Your task to perform on an android device: Is it going to rain this weekend? Image 0: 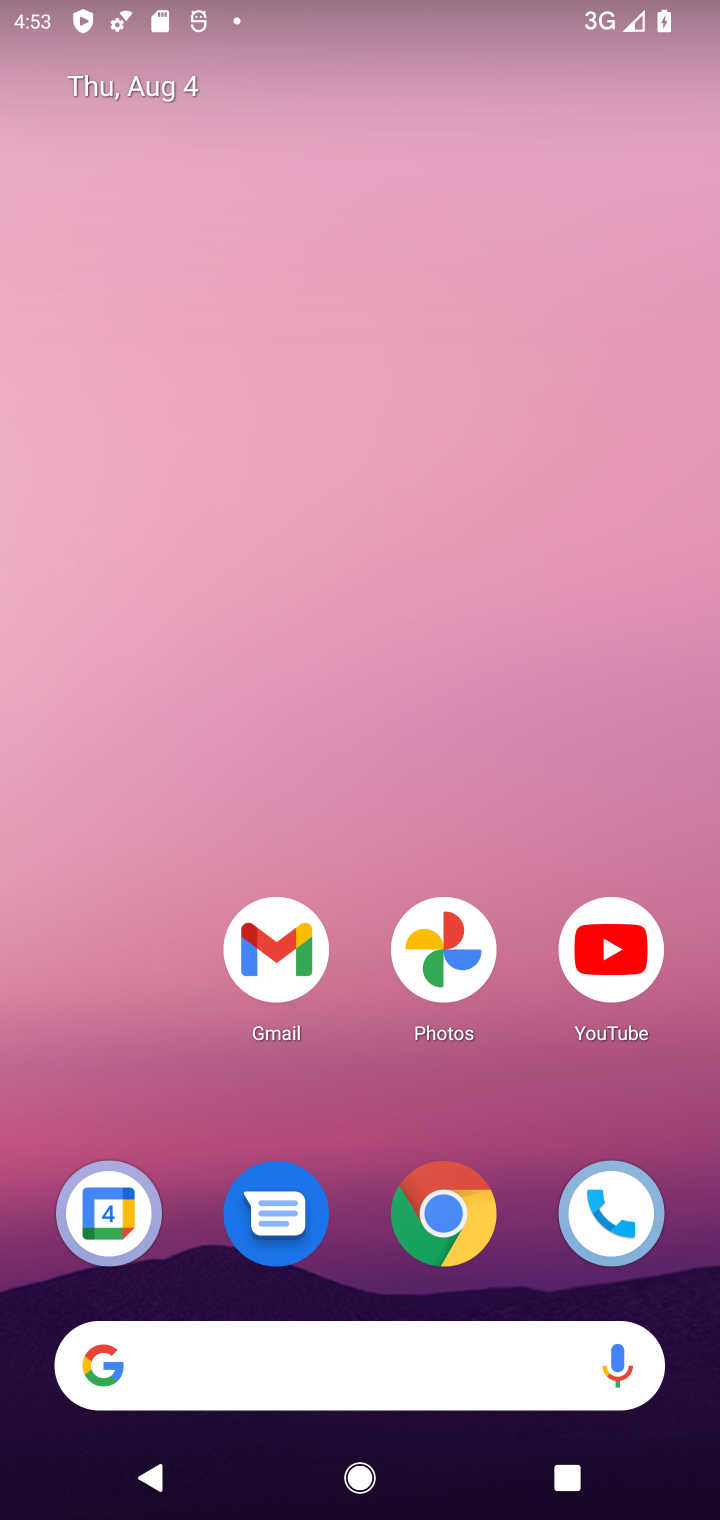
Step 0: press home button
Your task to perform on an android device: Is it going to rain this weekend? Image 1: 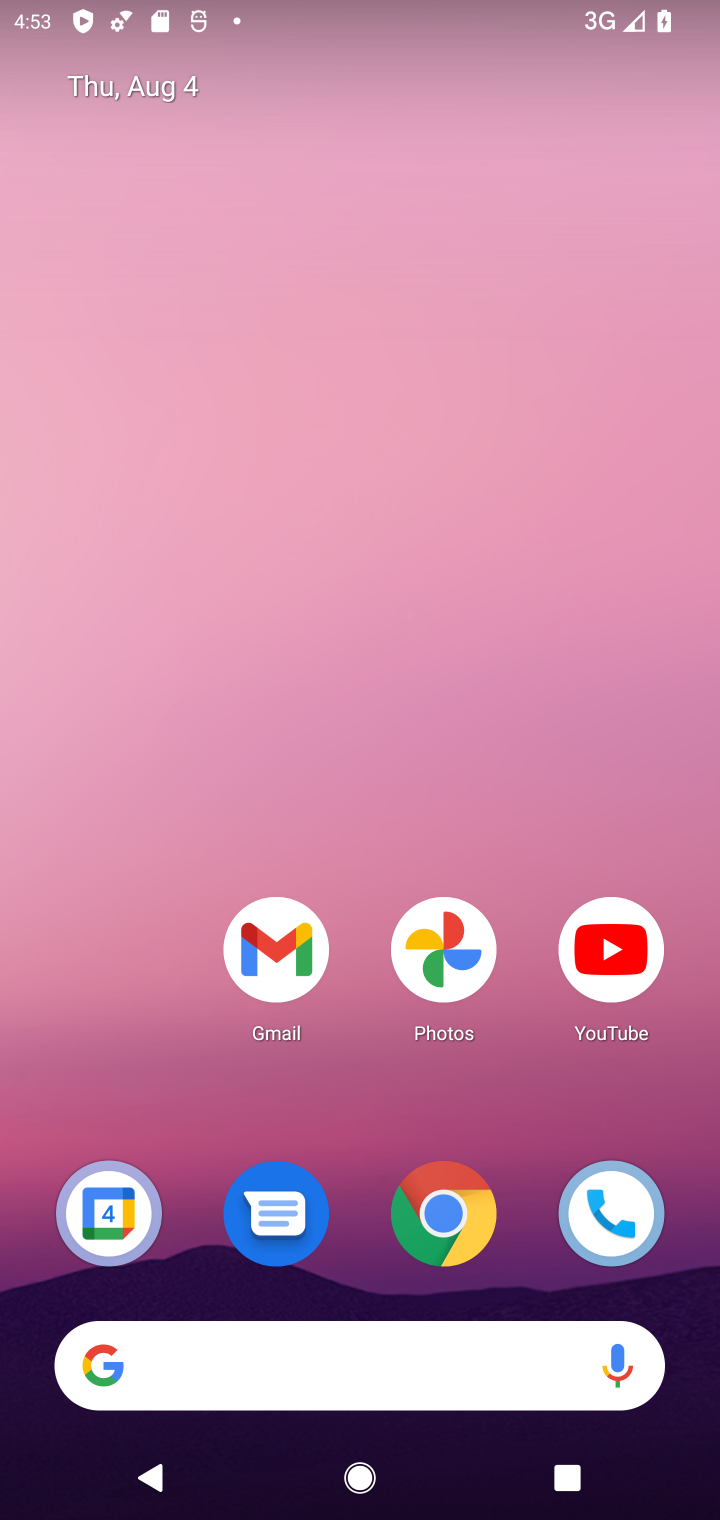
Step 1: click (353, 1358)
Your task to perform on an android device: Is it going to rain this weekend? Image 2: 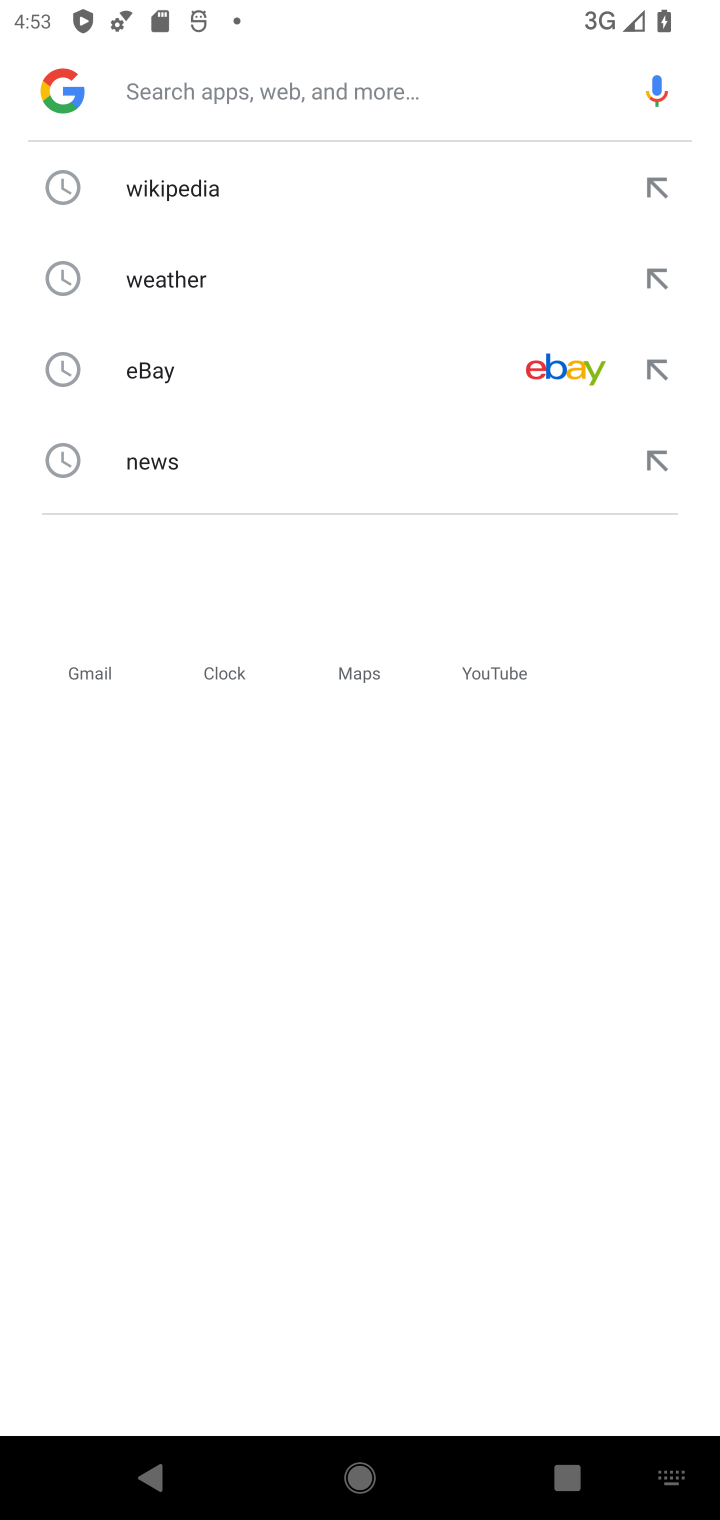
Step 2: click (170, 279)
Your task to perform on an android device: Is it going to rain this weekend? Image 3: 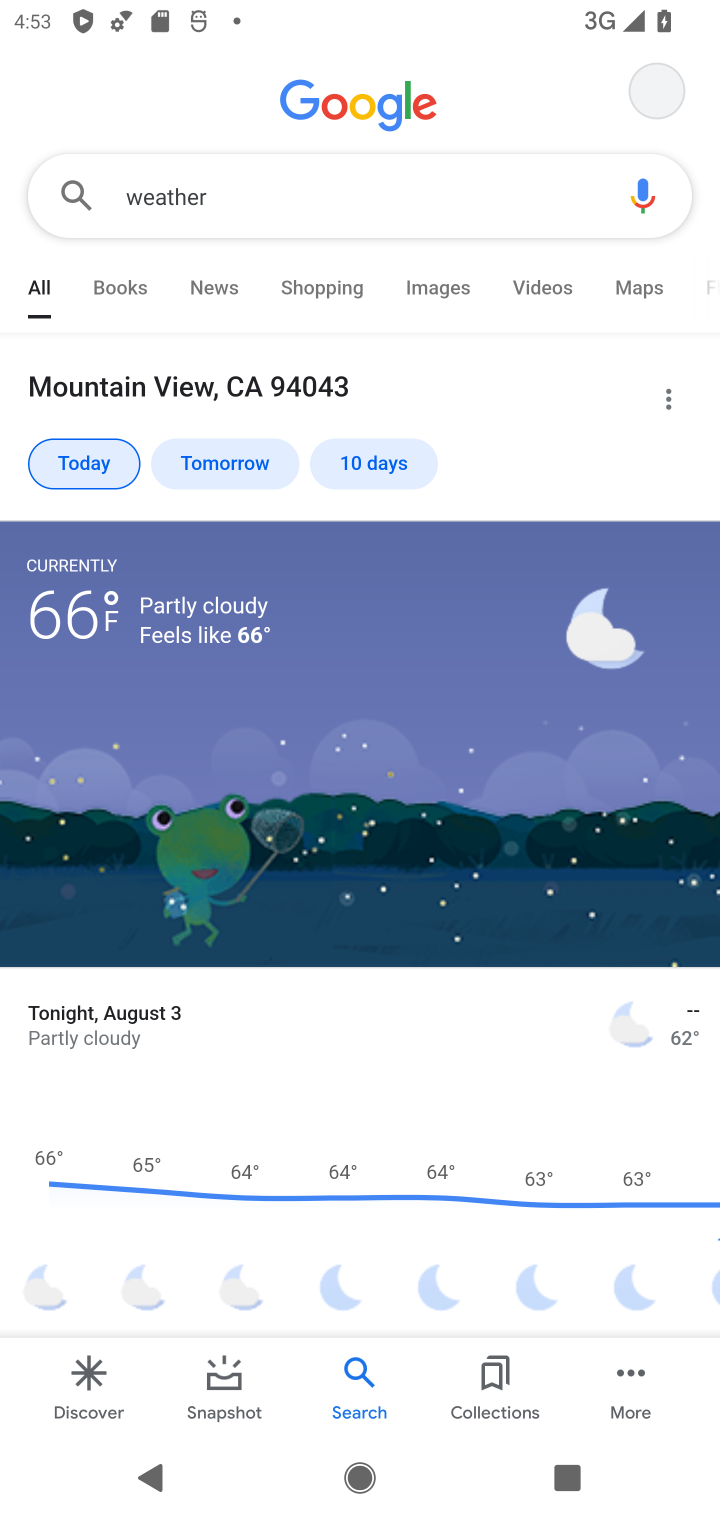
Step 3: click (386, 462)
Your task to perform on an android device: Is it going to rain this weekend? Image 4: 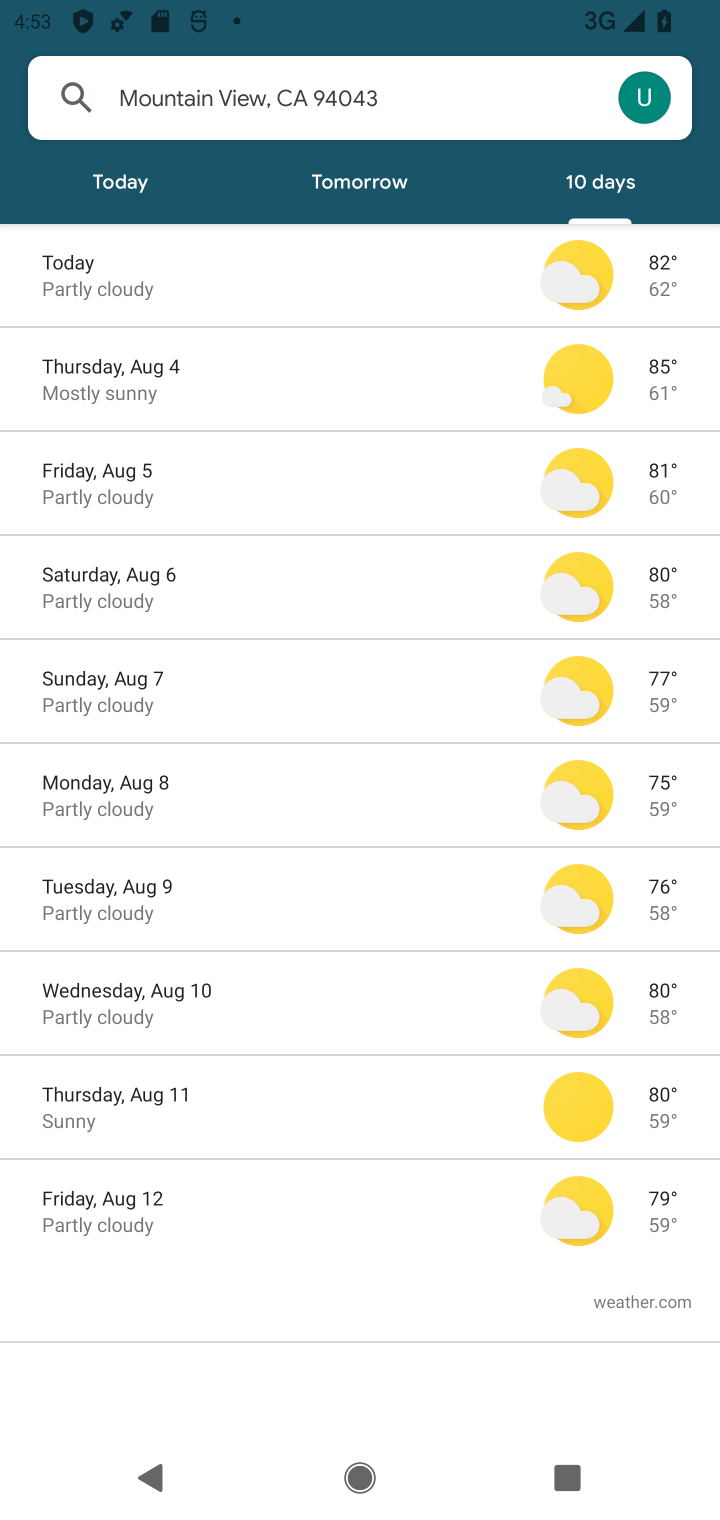
Step 4: click (269, 580)
Your task to perform on an android device: Is it going to rain this weekend? Image 5: 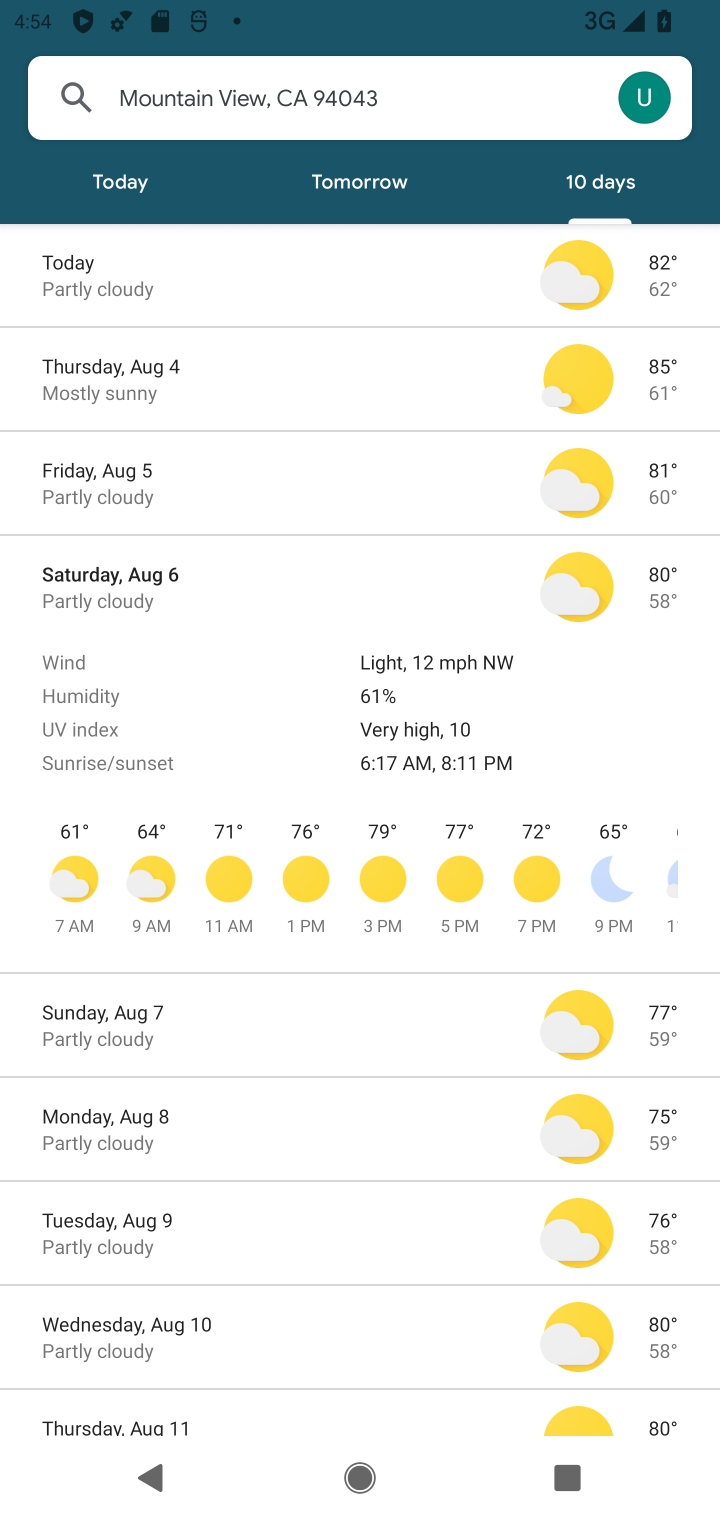
Step 5: task complete